Your task to perform on an android device: Show me recent news Image 0: 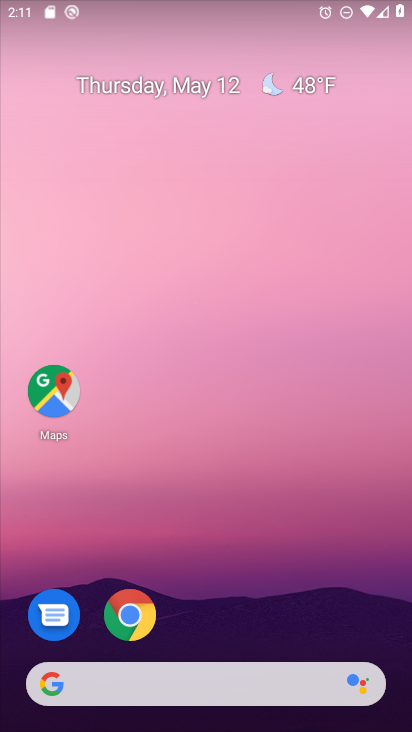
Step 0: drag from (252, 657) to (307, 11)
Your task to perform on an android device: Show me recent news Image 1: 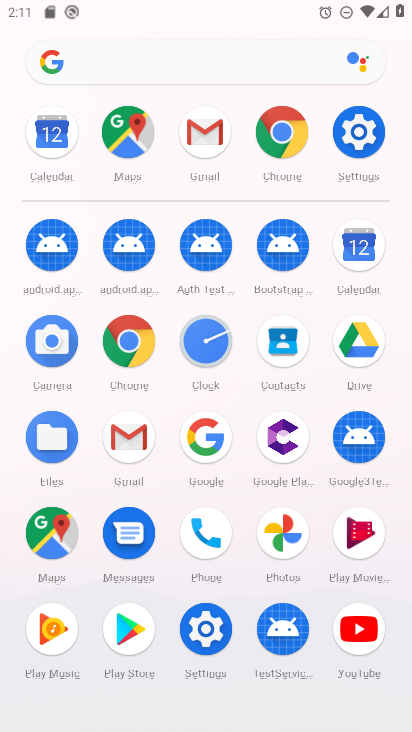
Step 1: click (120, 355)
Your task to perform on an android device: Show me recent news Image 2: 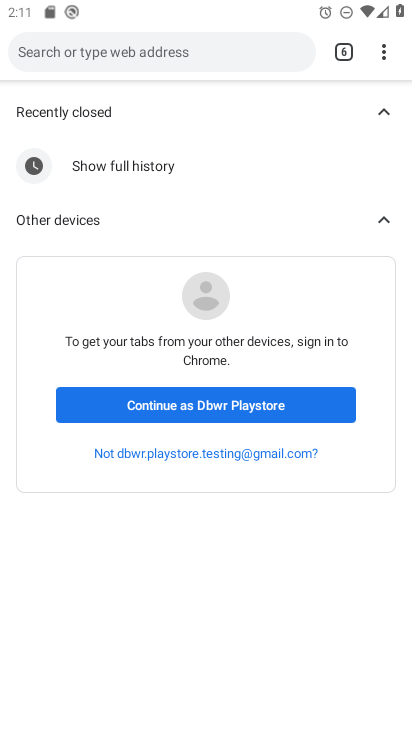
Step 2: click (225, 51)
Your task to perform on an android device: Show me recent news Image 3: 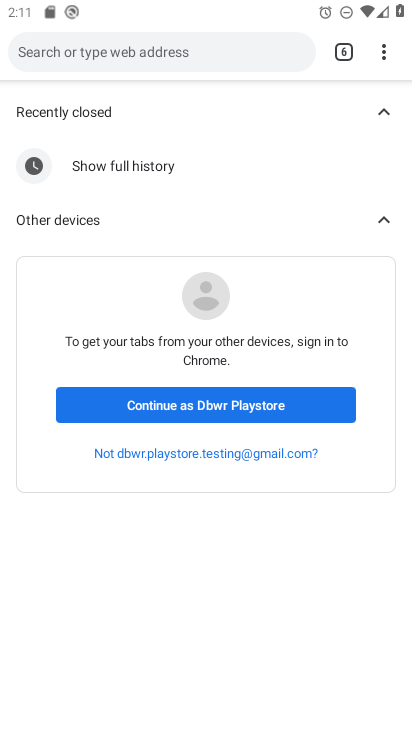
Step 3: click (246, 60)
Your task to perform on an android device: Show me recent news Image 4: 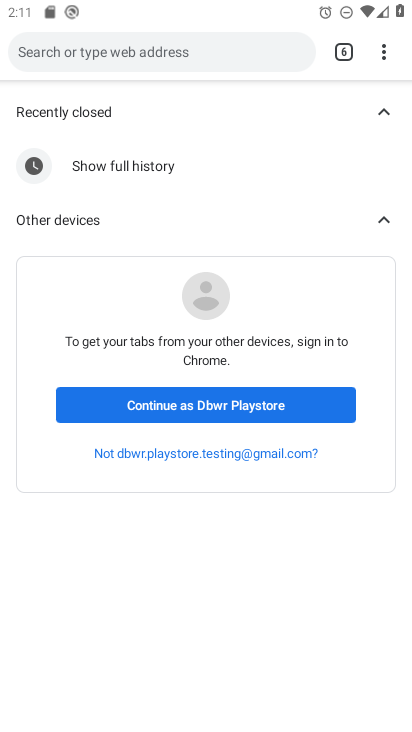
Step 4: click (246, 60)
Your task to perform on an android device: Show me recent news Image 5: 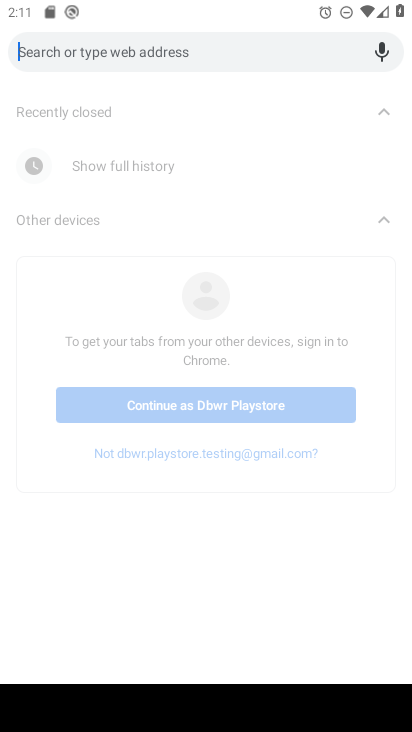
Step 5: type "recent news"
Your task to perform on an android device: Show me recent news Image 6: 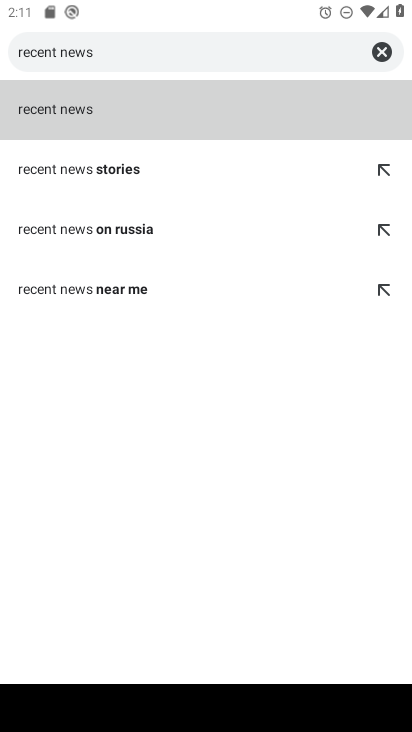
Step 6: click (137, 120)
Your task to perform on an android device: Show me recent news Image 7: 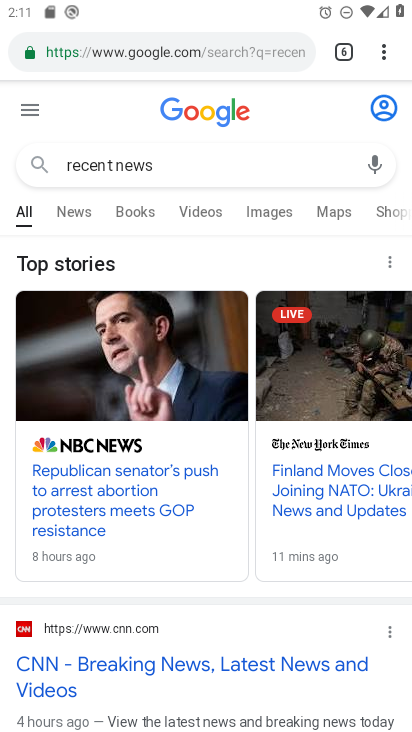
Step 7: task complete